Your task to perform on an android device: Open calendar and show me the third week of next month Image 0: 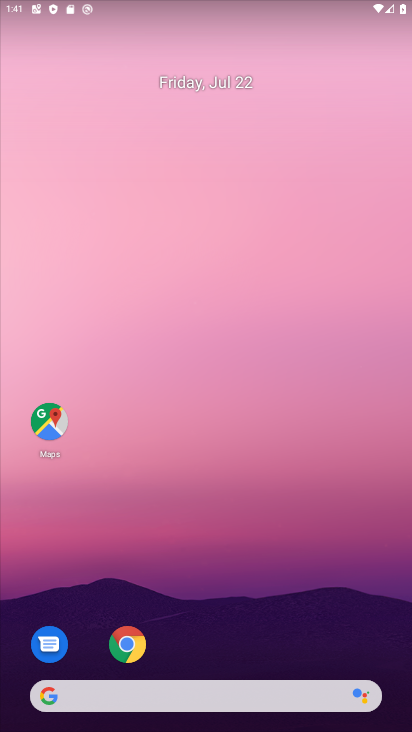
Step 0: drag from (266, 618) to (200, 233)
Your task to perform on an android device: Open calendar and show me the third week of next month Image 1: 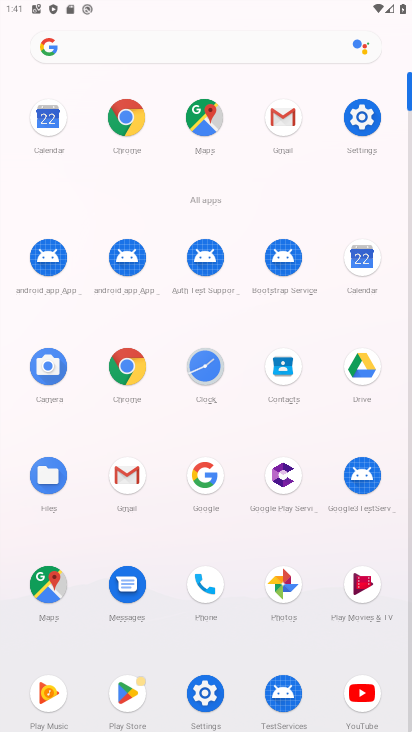
Step 1: click (361, 257)
Your task to perform on an android device: Open calendar and show me the third week of next month Image 2: 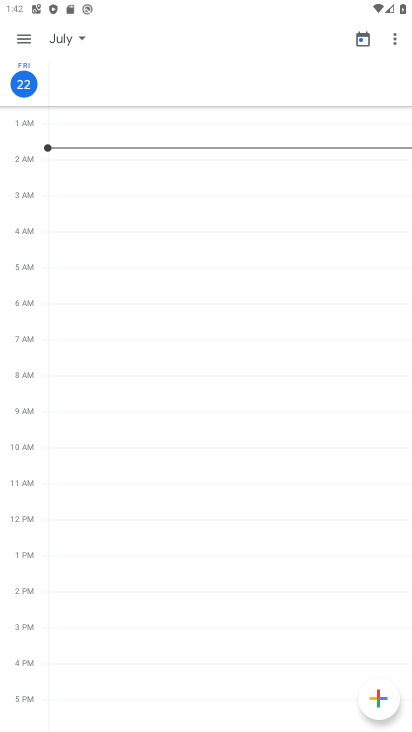
Step 2: click (23, 38)
Your task to perform on an android device: Open calendar and show me the third week of next month Image 3: 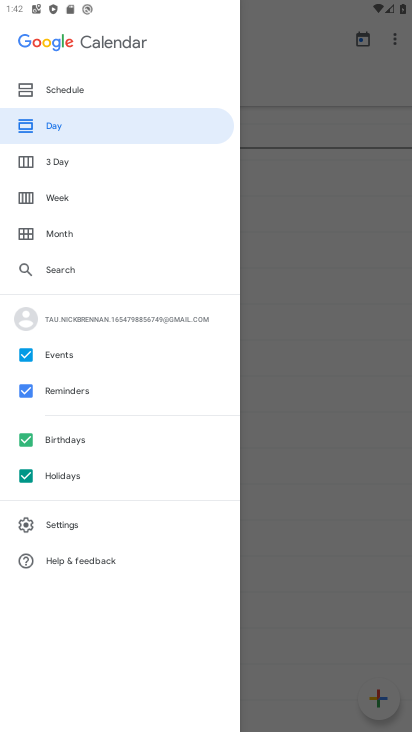
Step 3: click (63, 237)
Your task to perform on an android device: Open calendar and show me the third week of next month Image 4: 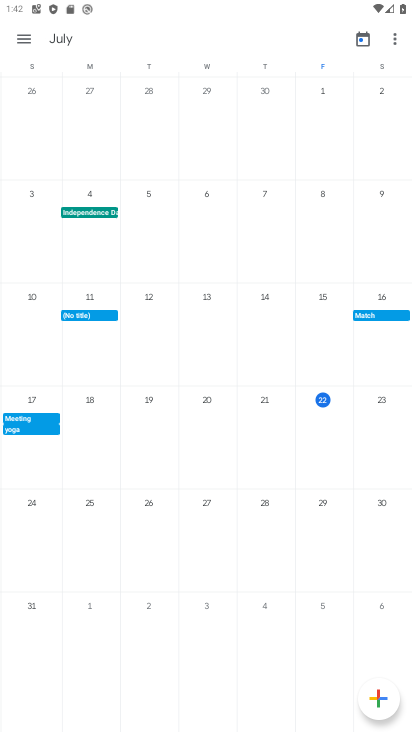
Step 4: drag from (349, 265) to (0, 27)
Your task to perform on an android device: Open calendar and show me the third week of next month Image 5: 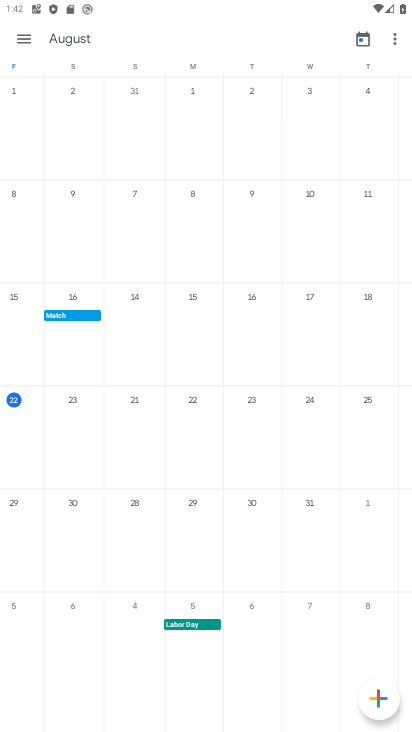
Step 5: click (14, 35)
Your task to perform on an android device: Open calendar and show me the third week of next month Image 6: 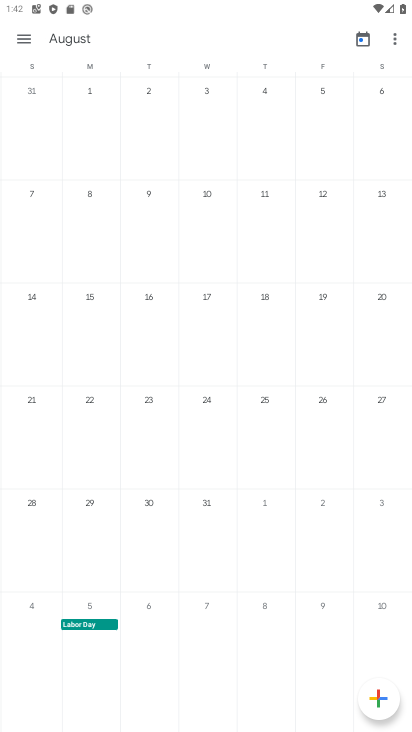
Step 6: click (24, 35)
Your task to perform on an android device: Open calendar and show me the third week of next month Image 7: 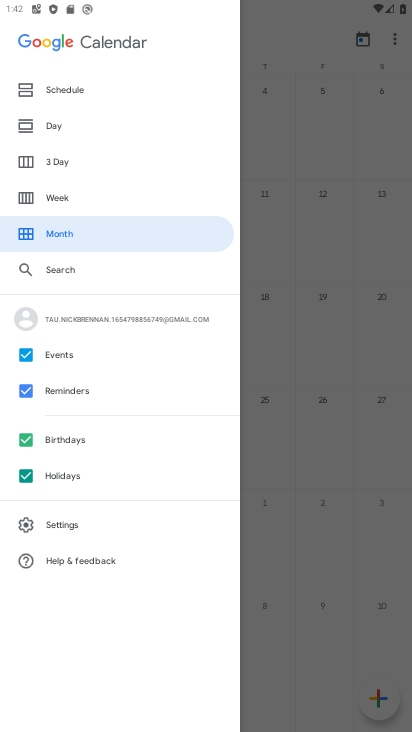
Step 7: click (77, 188)
Your task to perform on an android device: Open calendar and show me the third week of next month Image 8: 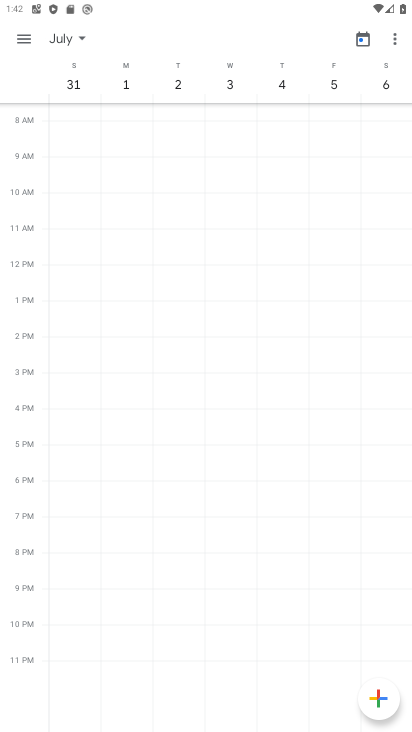
Step 8: task complete